Your task to perform on an android device: Do I have any events today? Image 0: 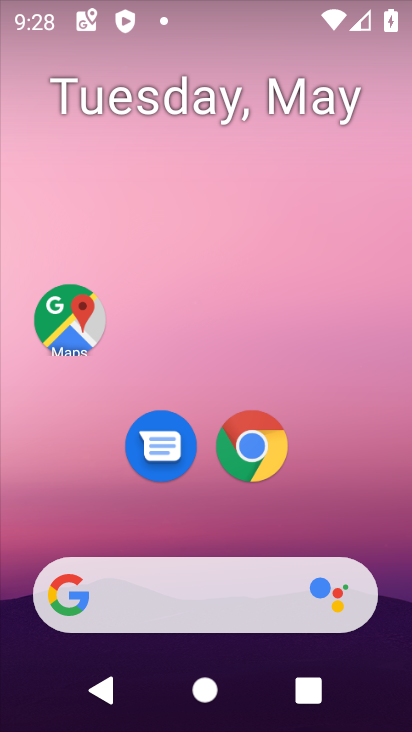
Step 0: drag from (227, 603) to (180, 235)
Your task to perform on an android device: Do I have any events today? Image 1: 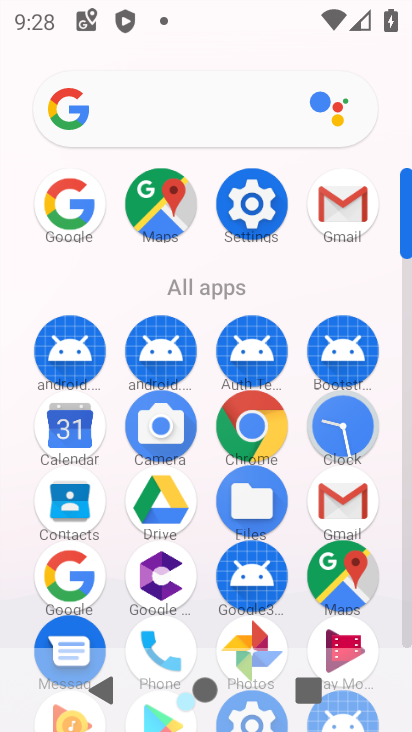
Step 1: click (61, 429)
Your task to perform on an android device: Do I have any events today? Image 2: 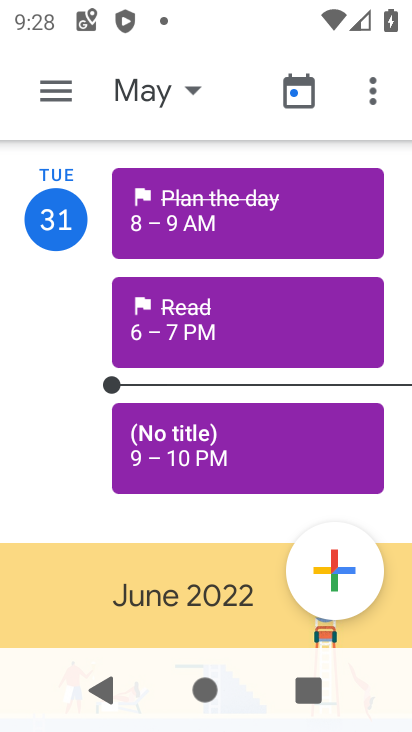
Step 2: task complete